Your task to perform on an android device: What is the recent news? Image 0: 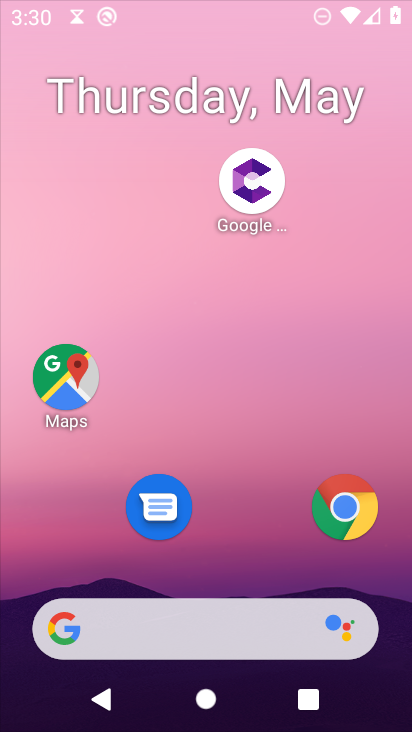
Step 0: press home button
Your task to perform on an android device: What is the recent news? Image 1: 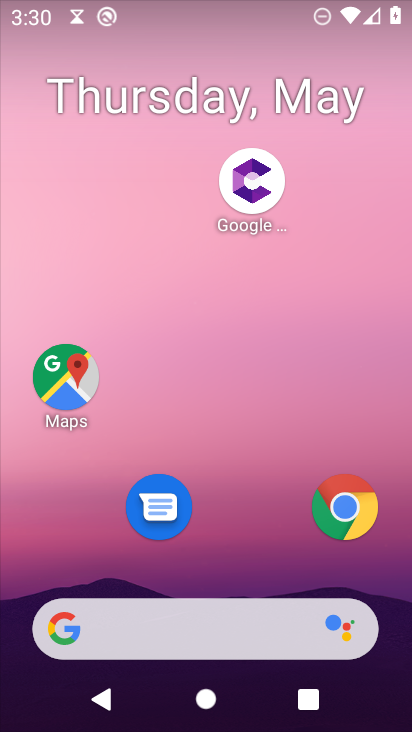
Step 1: click (43, 633)
Your task to perform on an android device: What is the recent news? Image 2: 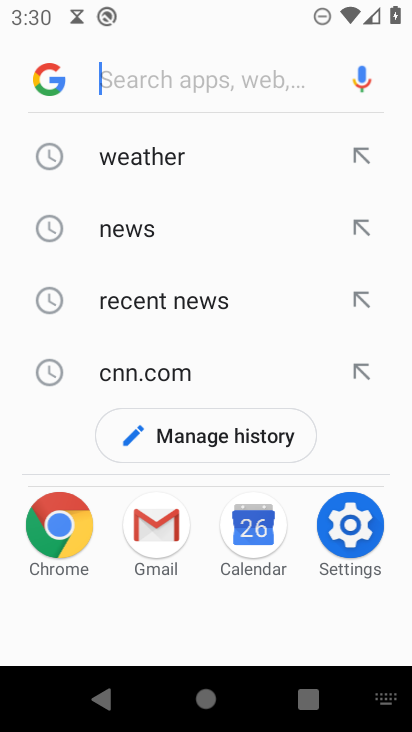
Step 2: click (146, 315)
Your task to perform on an android device: What is the recent news? Image 3: 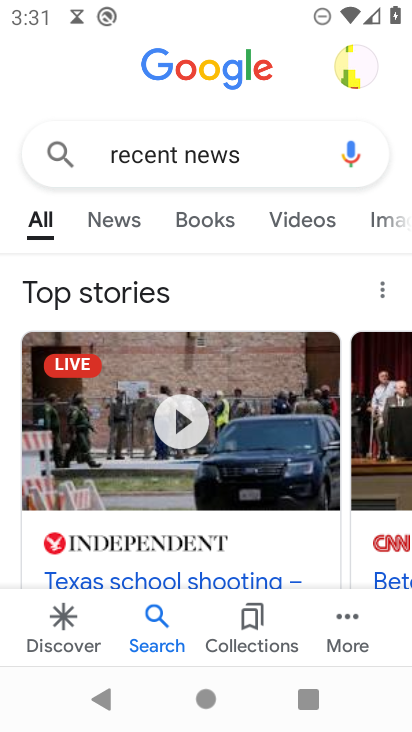
Step 3: task complete